Your task to perform on an android device: Find coffee shops on Maps Image 0: 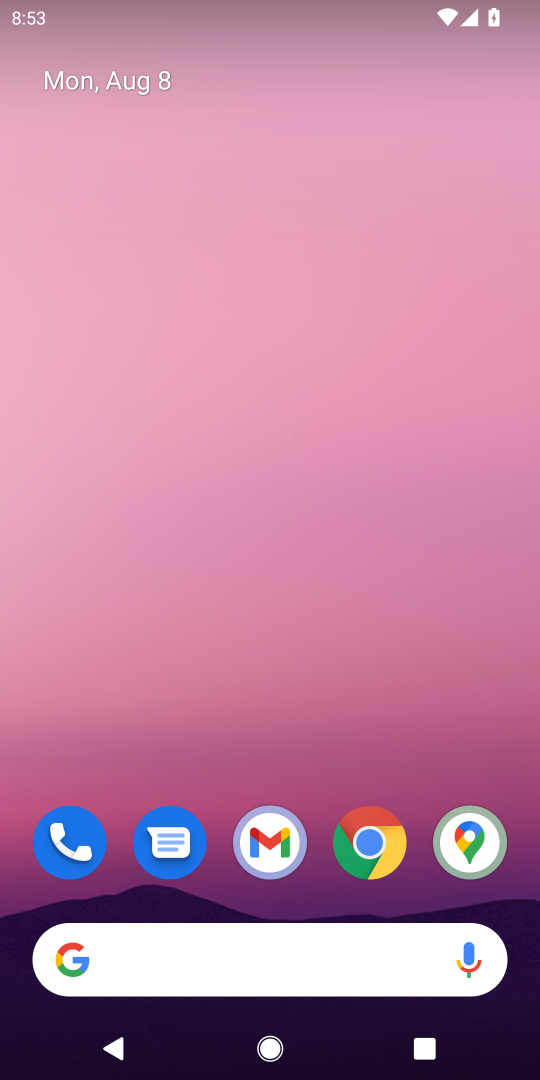
Step 0: click (481, 849)
Your task to perform on an android device: Find coffee shops on Maps Image 1: 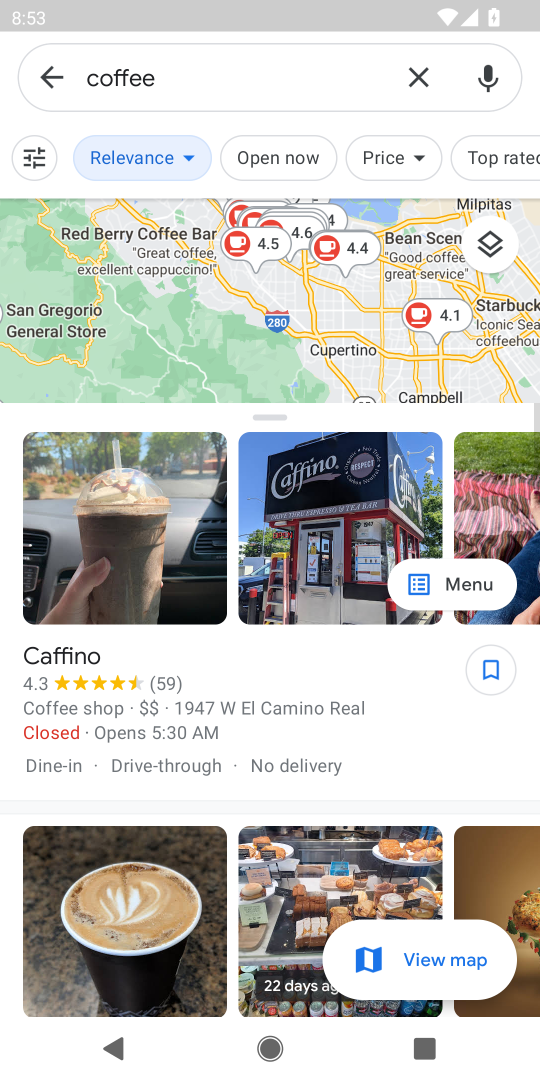
Step 1: click (426, 72)
Your task to perform on an android device: Find coffee shops on Maps Image 2: 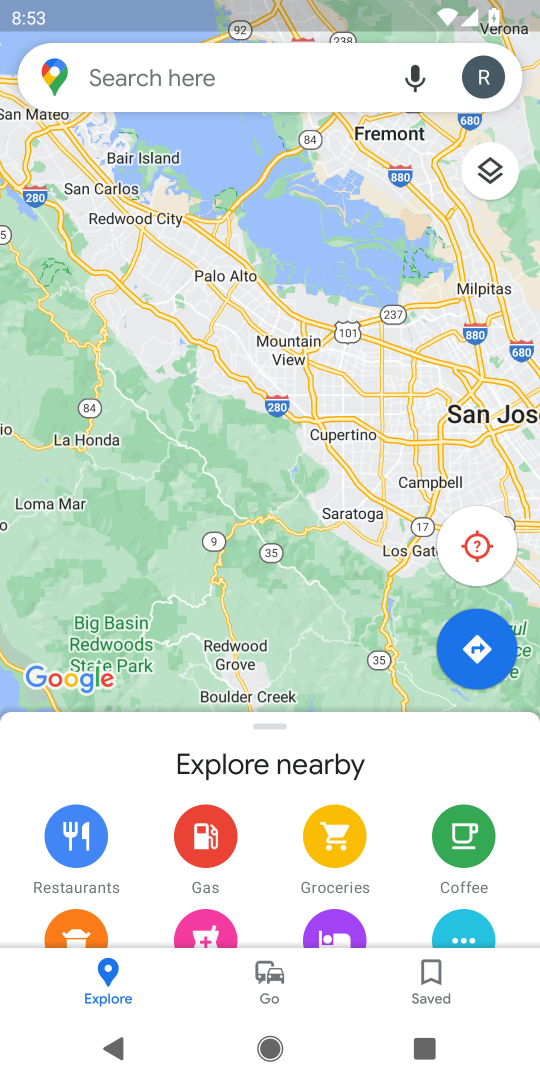
Step 2: click (177, 65)
Your task to perform on an android device: Find coffee shops on Maps Image 3: 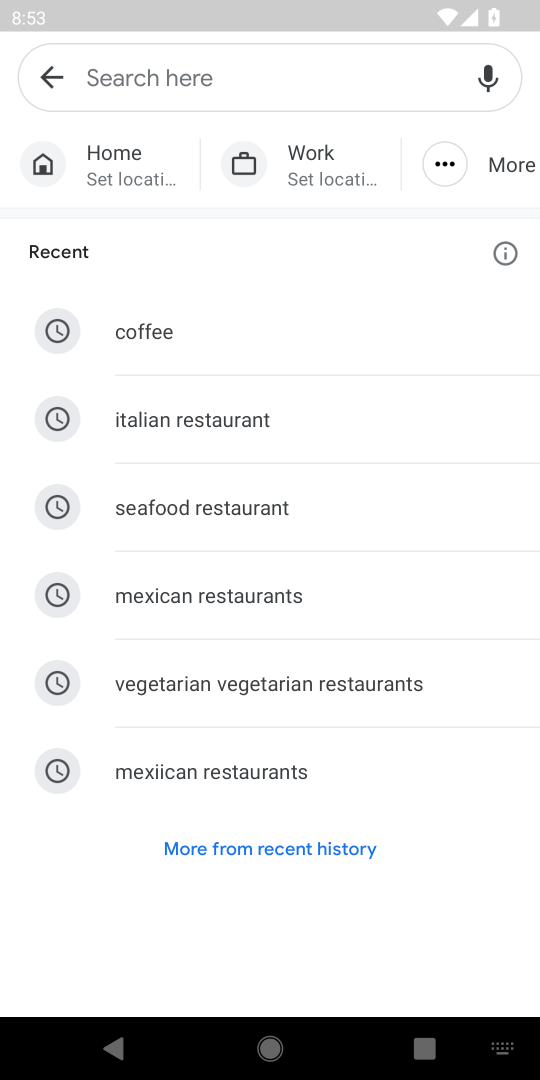
Step 3: type "coffee shops"
Your task to perform on an android device: Find coffee shops on Maps Image 4: 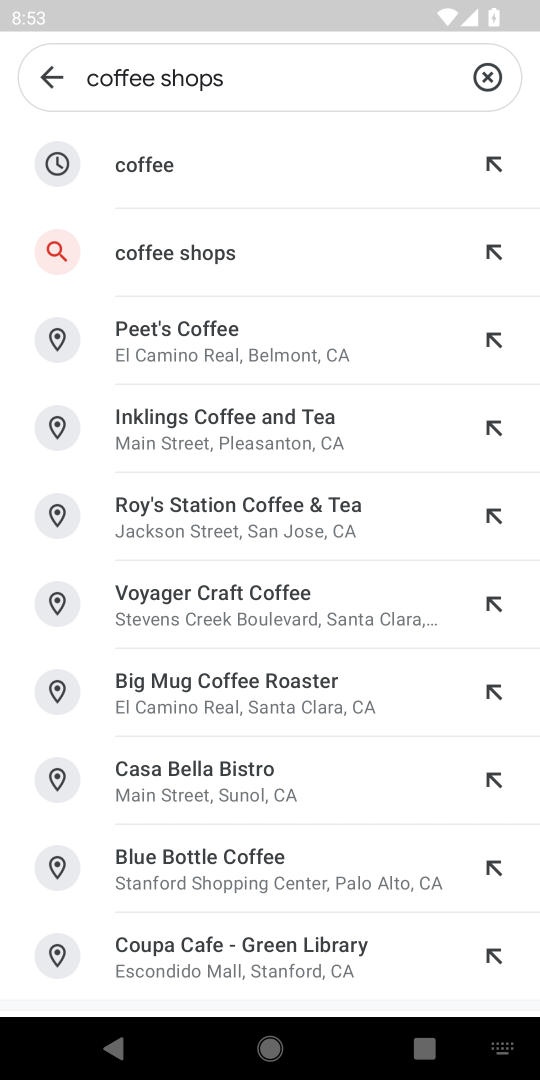
Step 4: click (209, 240)
Your task to perform on an android device: Find coffee shops on Maps Image 5: 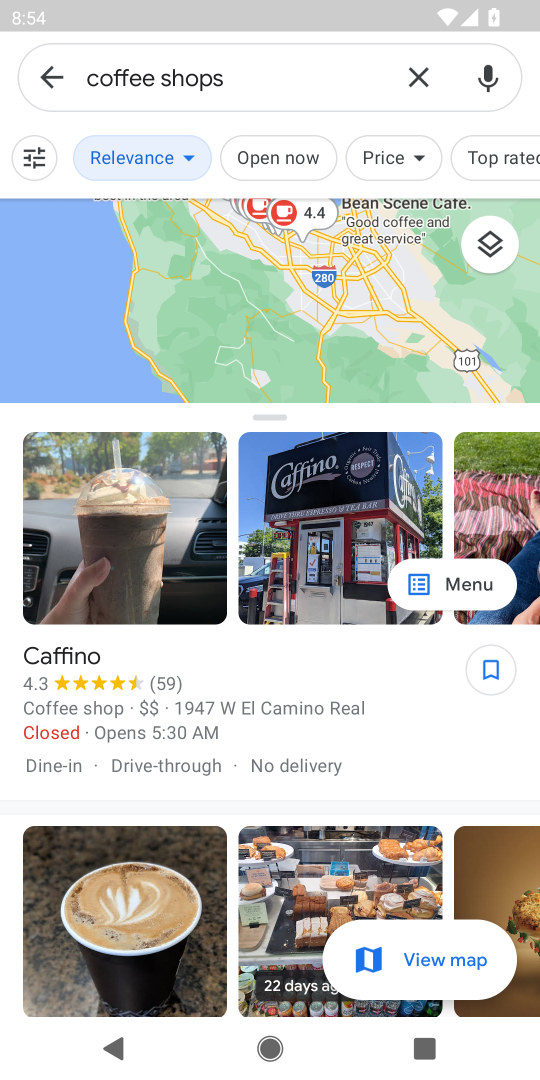
Step 5: task complete